Your task to perform on an android device: turn on showing notifications on the lock screen Image 0: 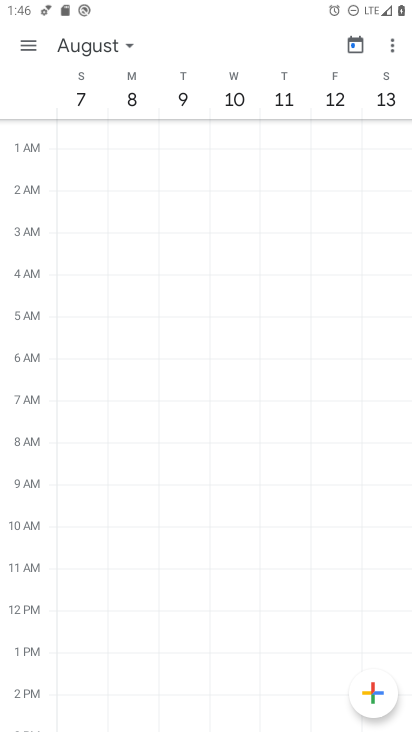
Step 0: press home button
Your task to perform on an android device: turn on showing notifications on the lock screen Image 1: 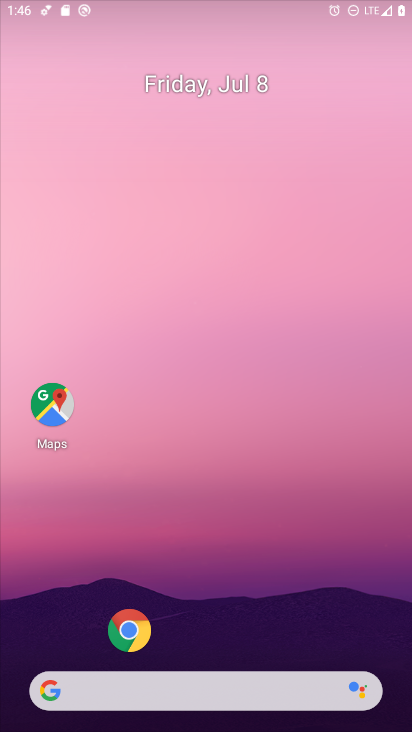
Step 1: drag from (300, 687) to (351, 62)
Your task to perform on an android device: turn on showing notifications on the lock screen Image 2: 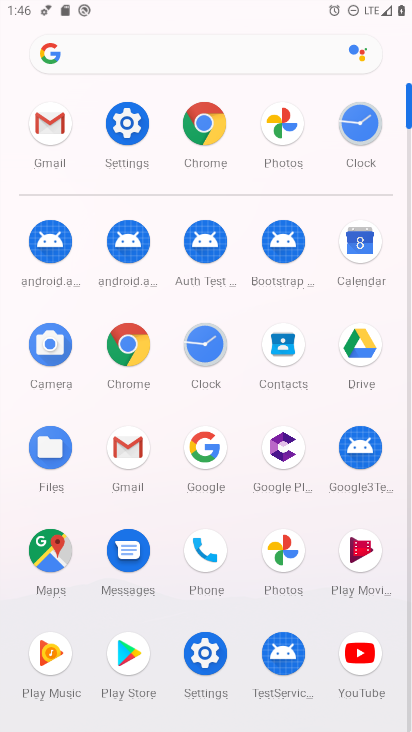
Step 2: click (197, 647)
Your task to perform on an android device: turn on showing notifications on the lock screen Image 3: 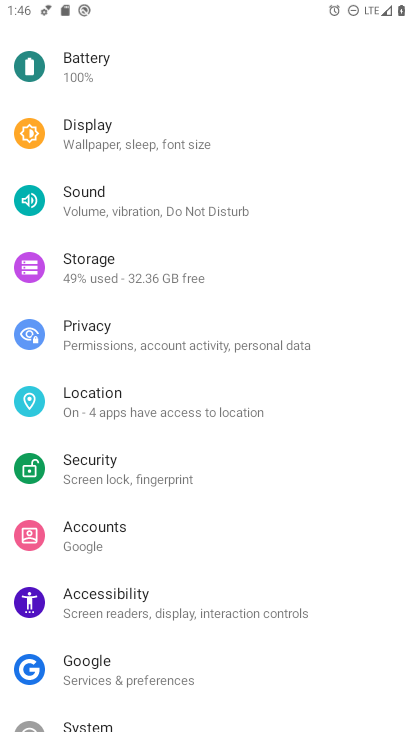
Step 3: drag from (231, 187) to (256, 721)
Your task to perform on an android device: turn on showing notifications on the lock screen Image 4: 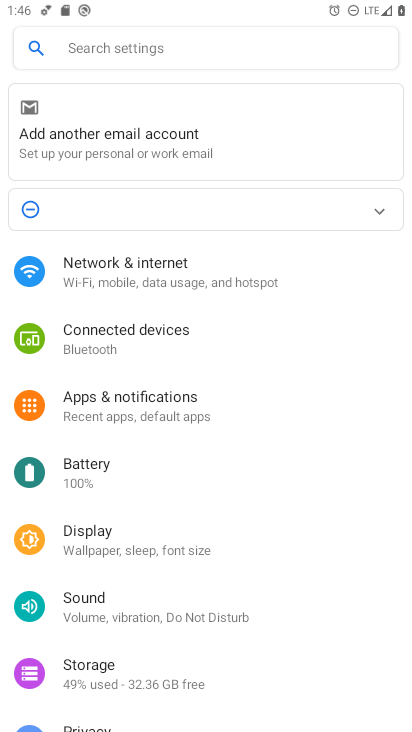
Step 4: click (205, 429)
Your task to perform on an android device: turn on showing notifications on the lock screen Image 5: 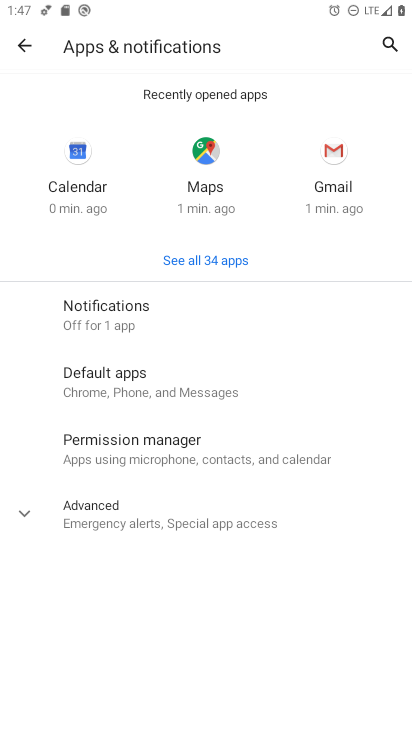
Step 5: click (136, 330)
Your task to perform on an android device: turn on showing notifications on the lock screen Image 6: 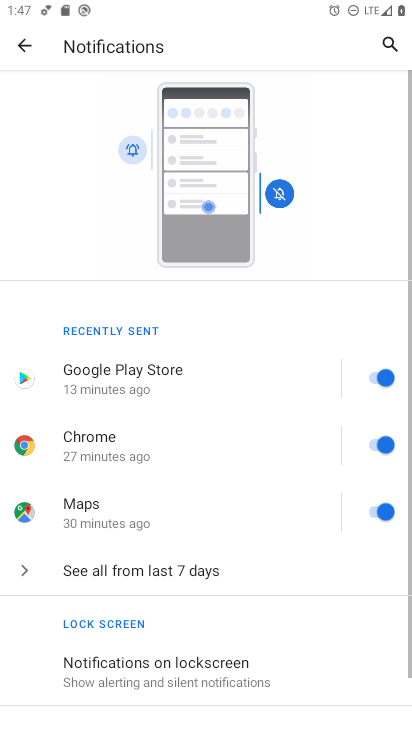
Step 6: drag from (214, 633) to (245, 378)
Your task to perform on an android device: turn on showing notifications on the lock screen Image 7: 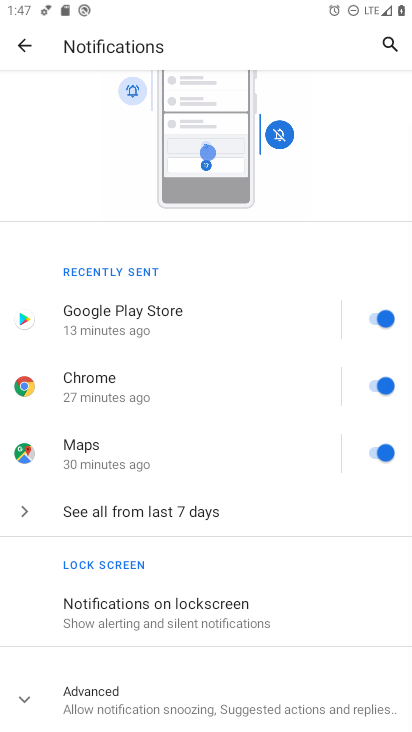
Step 7: click (200, 609)
Your task to perform on an android device: turn on showing notifications on the lock screen Image 8: 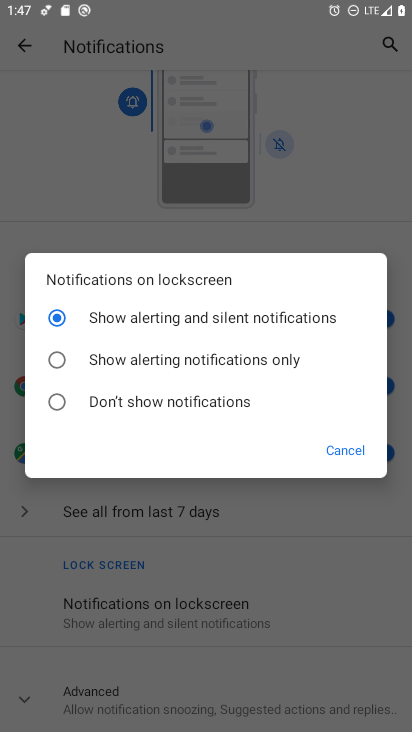
Step 8: task complete